Your task to perform on an android device: Go to settings Image 0: 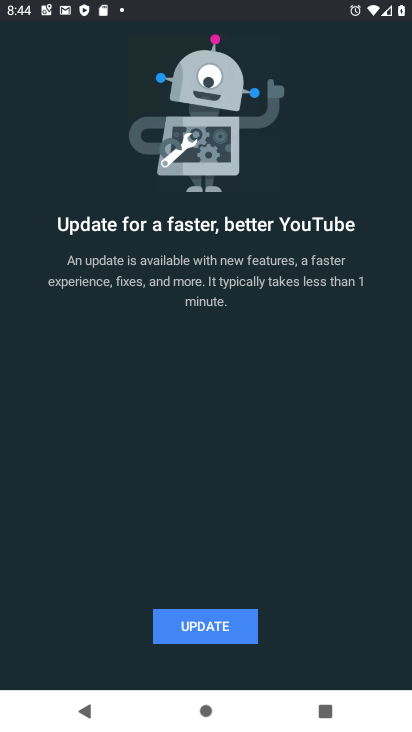
Step 0: press home button
Your task to perform on an android device: Go to settings Image 1: 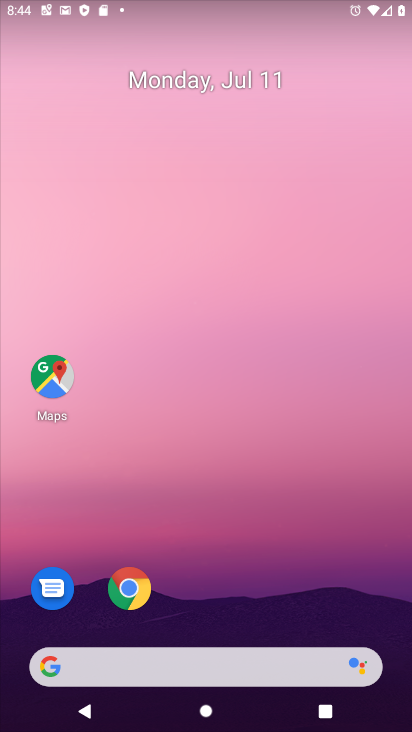
Step 1: drag from (151, 672) to (346, 85)
Your task to perform on an android device: Go to settings Image 2: 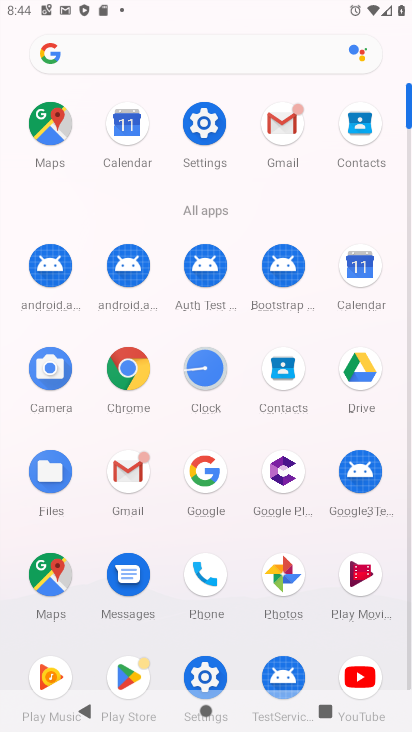
Step 2: click (205, 120)
Your task to perform on an android device: Go to settings Image 3: 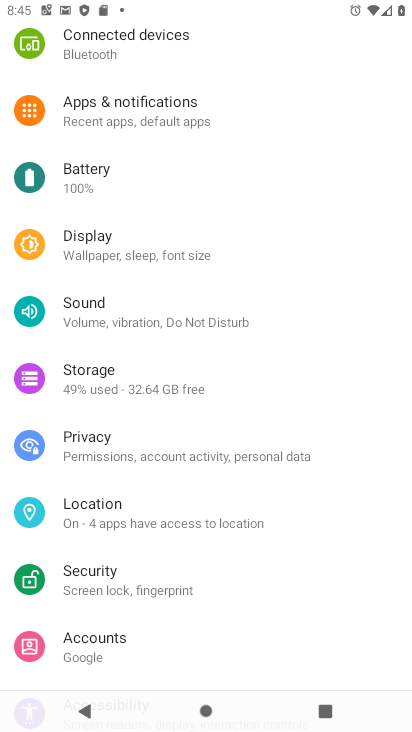
Step 3: task complete